Your task to perform on an android device: toggle pop-ups in chrome Image 0: 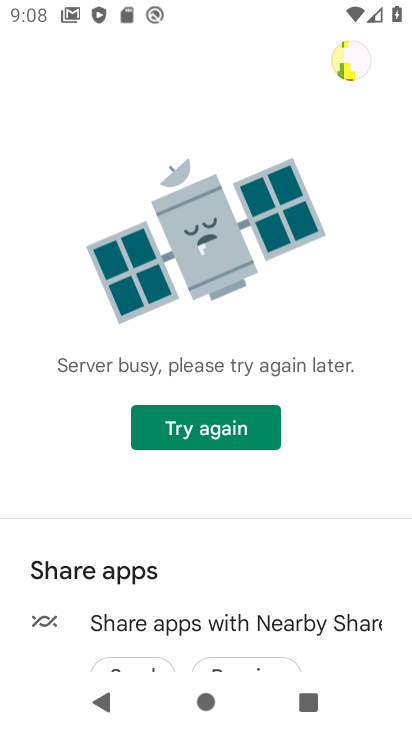
Step 0: press home button
Your task to perform on an android device: toggle pop-ups in chrome Image 1: 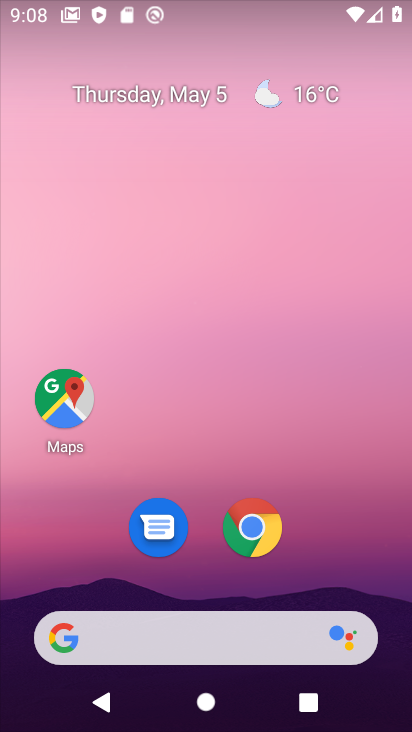
Step 1: drag from (205, 576) to (249, 34)
Your task to perform on an android device: toggle pop-ups in chrome Image 2: 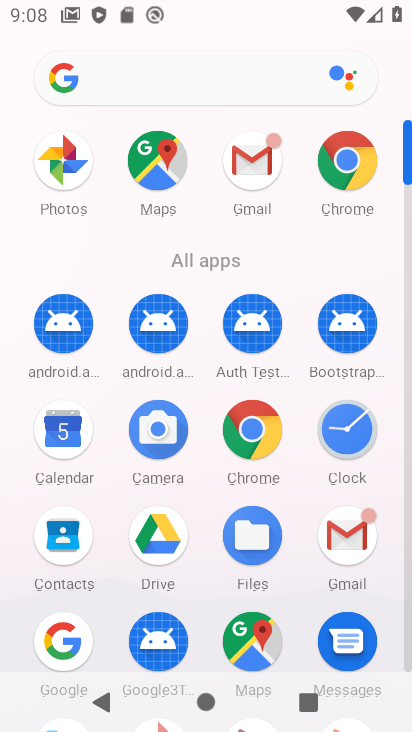
Step 2: click (344, 153)
Your task to perform on an android device: toggle pop-ups in chrome Image 3: 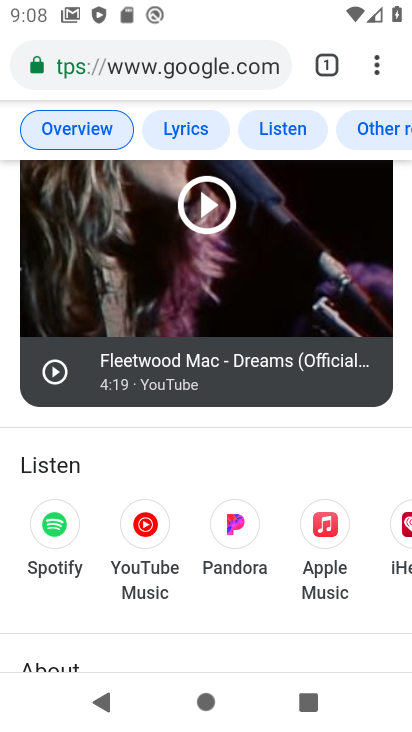
Step 3: click (378, 64)
Your task to perform on an android device: toggle pop-ups in chrome Image 4: 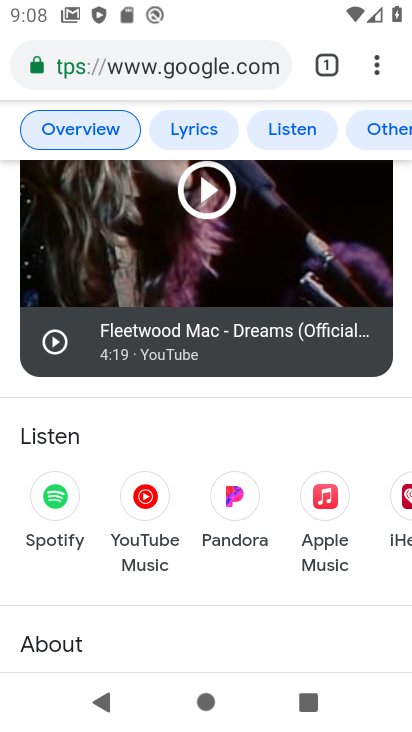
Step 4: click (376, 63)
Your task to perform on an android device: toggle pop-ups in chrome Image 5: 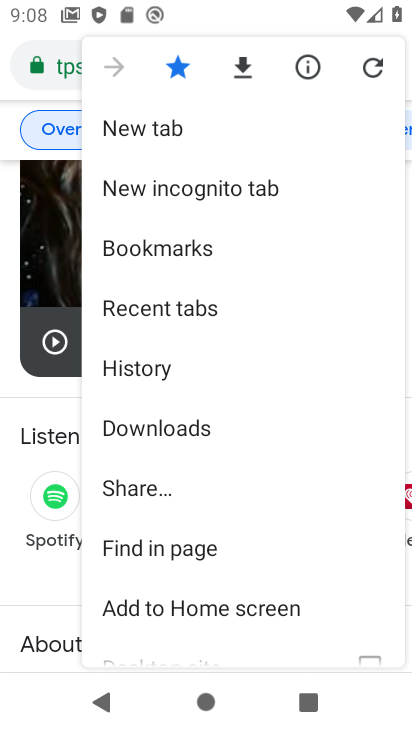
Step 5: drag from (244, 576) to (266, 92)
Your task to perform on an android device: toggle pop-ups in chrome Image 6: 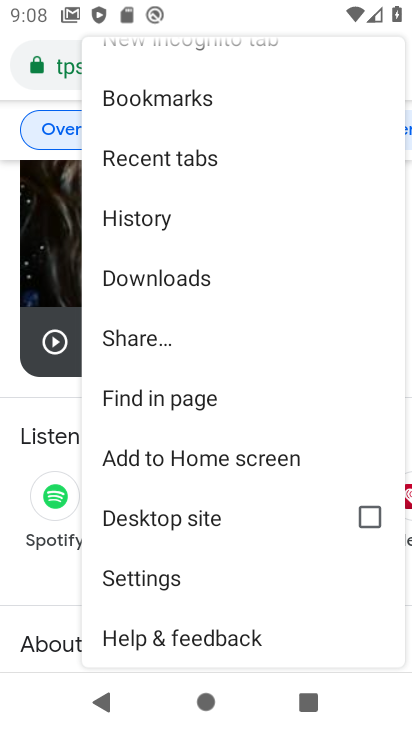
Step 6: click (199, 578)
Your task to perform on an android device: toggle pop-ups in chrome Image 7: 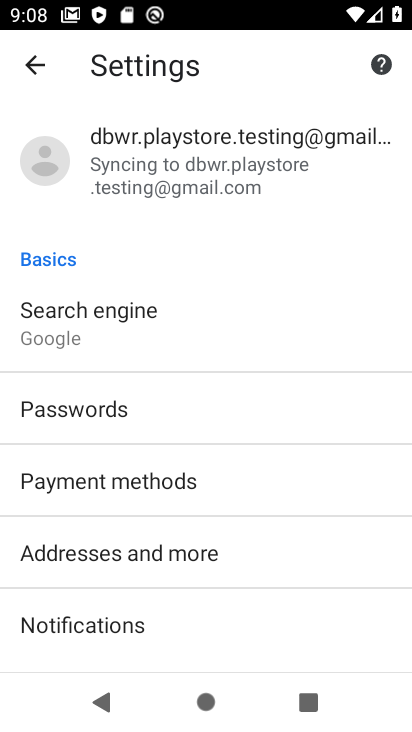
Step 7: drag from (233, 630) to (270, 169)
Your task to perform on an android device: toggle pop-ups in chrome Image 8: 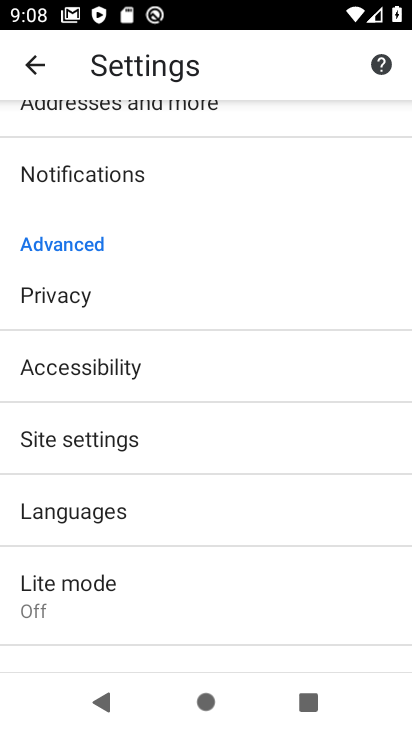
Step 8: click (151, 435)
Your task to perform on an android device: toggle pop-ups in chrome Image 9: 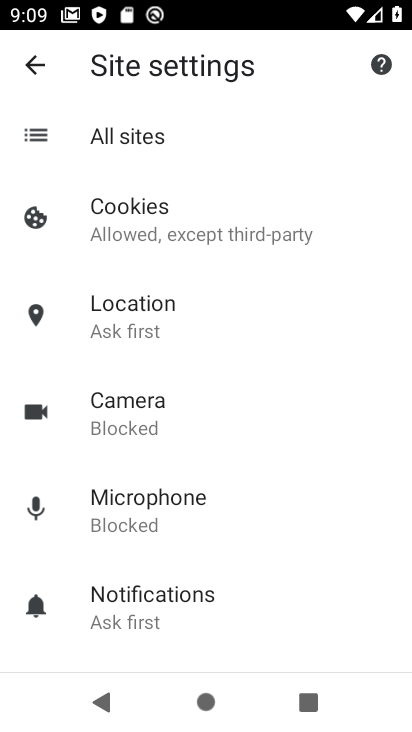
Step 9: drag from (189, 621) to (231, 177)
Your task to perform on an android device: toggle pop-ups in chrome Image 10: 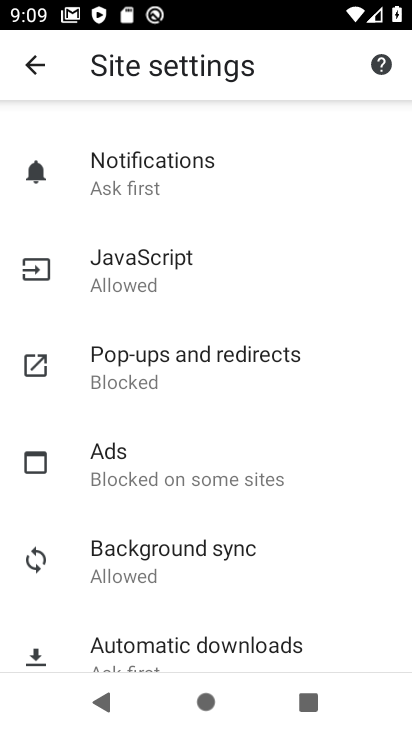
Step 10: click (182, 367)
Your task to perform on an android device: toggle pop-ups in chrome Image 11: 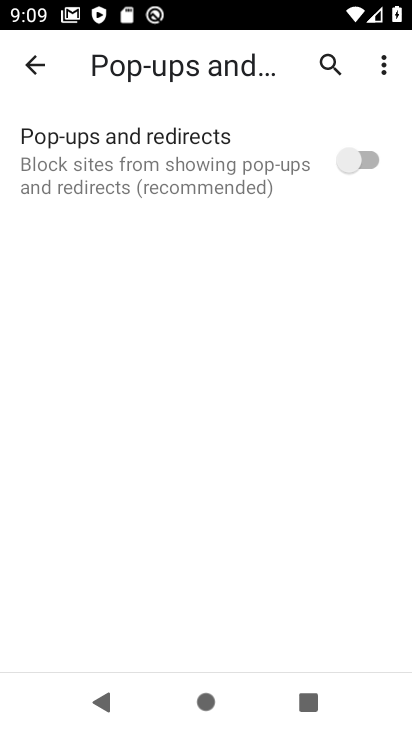
Step 11: click (363, 155)
Your task to perform on an android device: toggle pop-ups in chrome Image 12: 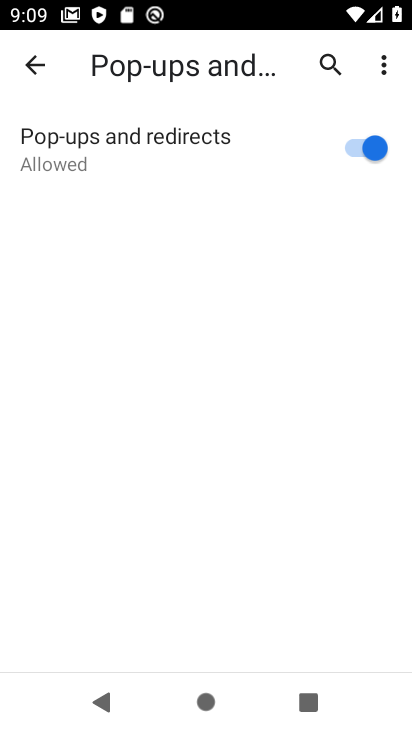
Step 12: task complete